Your task to perform on an android device: choose inbox layout in the gmail app Image 0: 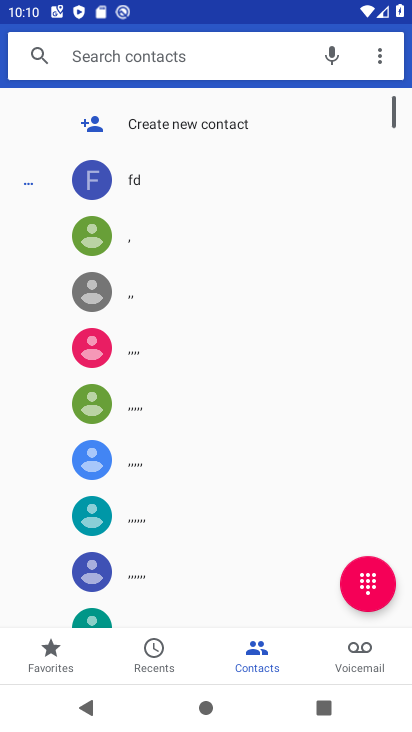
Step 0: press home button
Your task to perform on an android device: choose inbox layout in the gmail app Image 1: 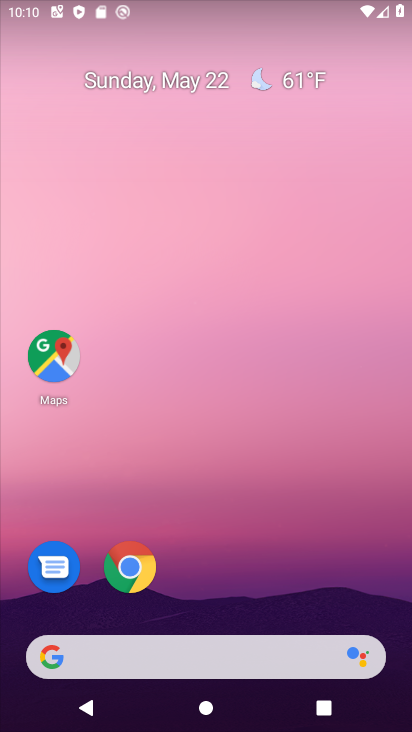
Step 1: drag from (194, 638) to (146, 58)
Your task to perform on an android device: choose inbox layout in the gmail app Image 2: 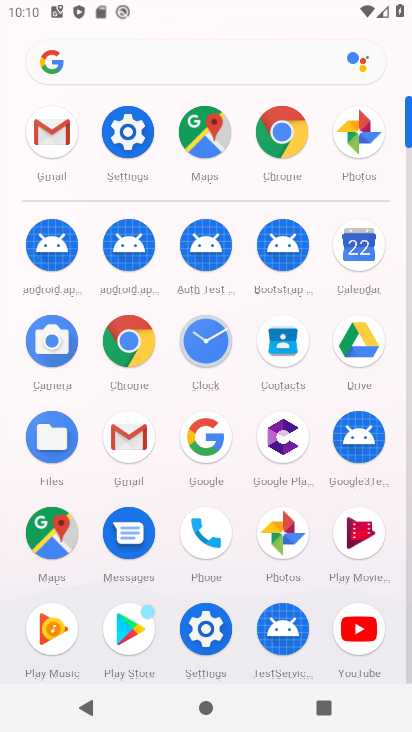
Step 2: click (117, 438)
Your task to perform on an android device: choose inbox layout in the gmail app Image 3: 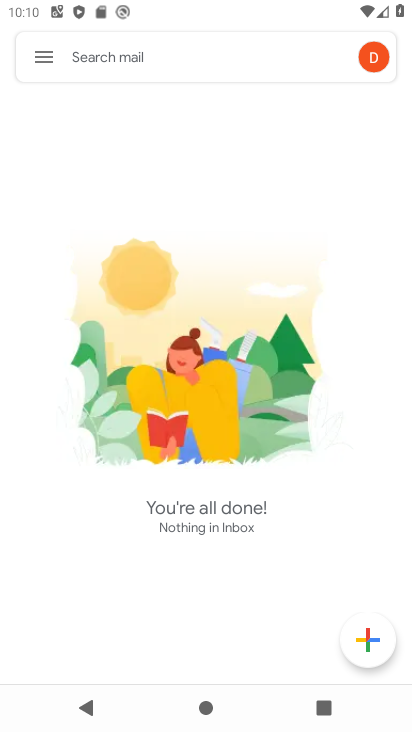
Step 3: task complete